Your task to perform on an android device: open app "PUBG MOBILE" (install if not already installed) Image 0: 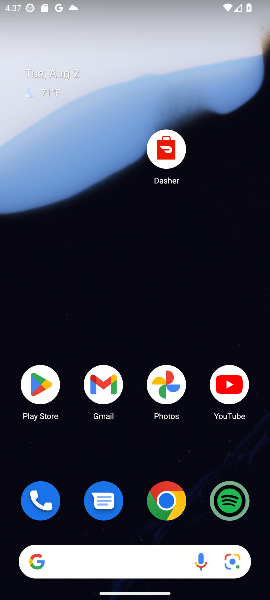
Step 0: click (43, 387)
Your task to perform on an android device: open app "PUBG MOBILE" (install if not already installed) Image 1: 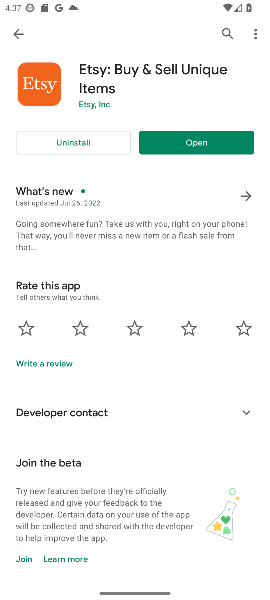
Step 1: click (222, 36)
Your task to perform on an android device: open app "PUBG MOBILE" (install if not already installed) Image 2: 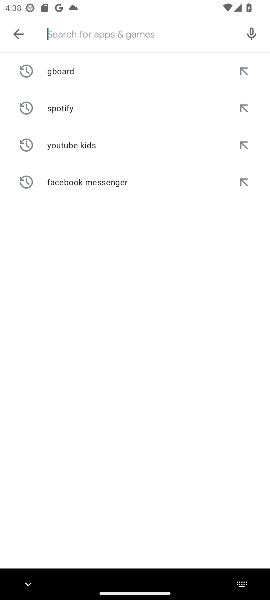
Step 2: click (82, 39)
Your task to perform on an android device: open app "PUBG MOBILE" (install if not already installed) Image 3: 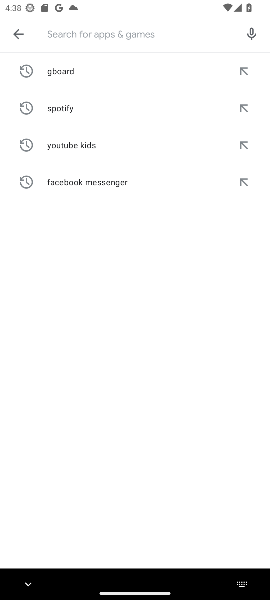
Step 3: type "PUBG MOBILE"
Your task to perform on an android device: open app "PUBG MOBILE" (install if not already installed) Image 4: 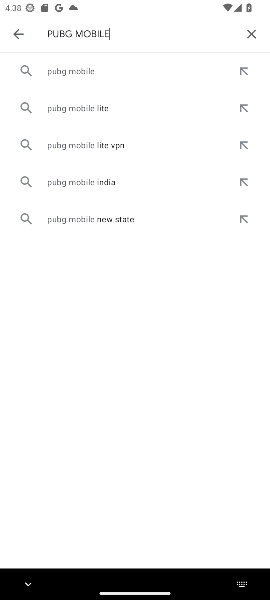
Step 4: click (75, 71)
Your task to perform on an android device: open app "PUBG MOBILE" (install if not already installed) Image 5: 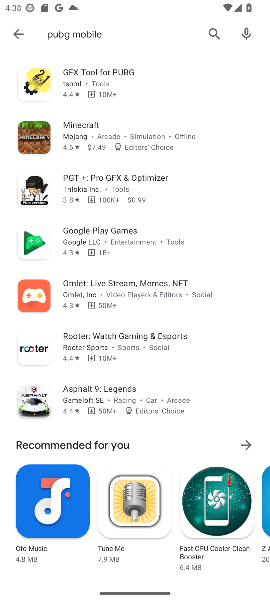
Step 5: task complete